Your task to perform on an android device: delete the emails in spam in the gmail app Image 0: 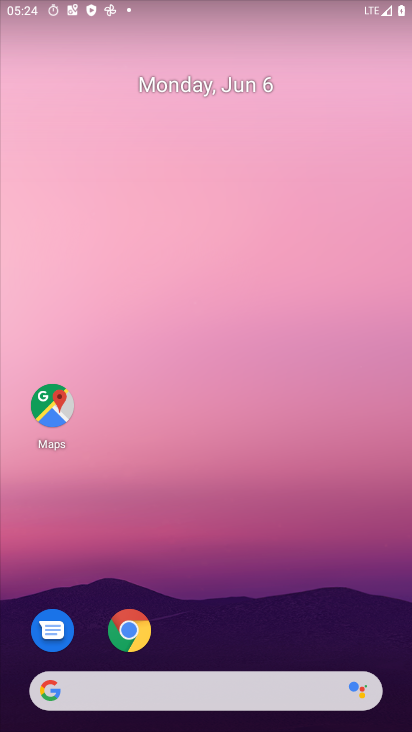
Step 0: drag from (239, 627) to (237, 78)
Your task to perform on an android device: delete the emails in spam in the gmail app Image 1: 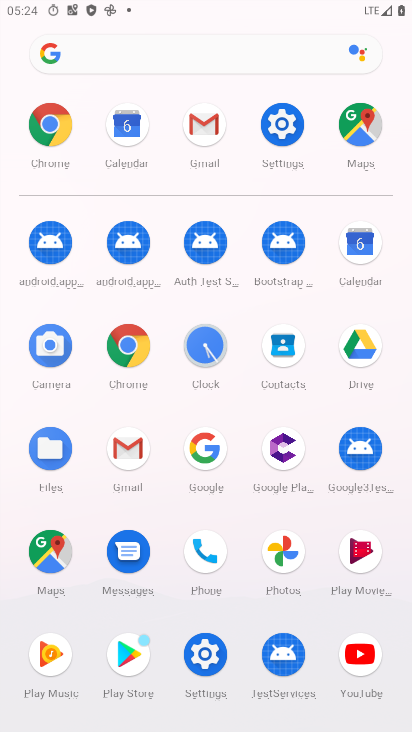
Step 1: click (124, 453)
Your task to perform on an android device: delete the emails in spam in the gmail app Image 2: 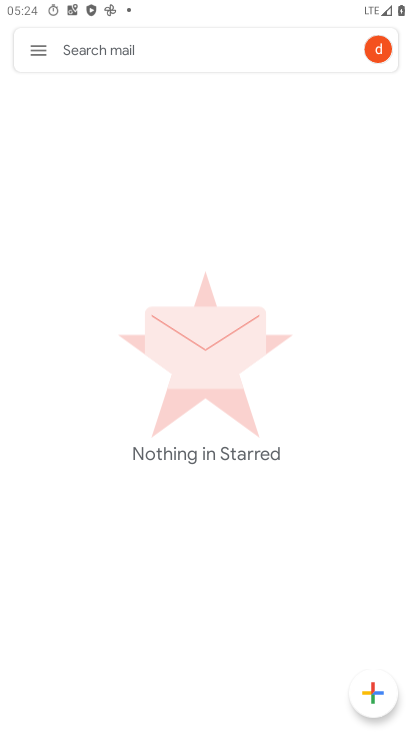
Step 2: click (42, 44)
Your task to perform on an android device: delete the emails in spam in the gmail app Image 3: 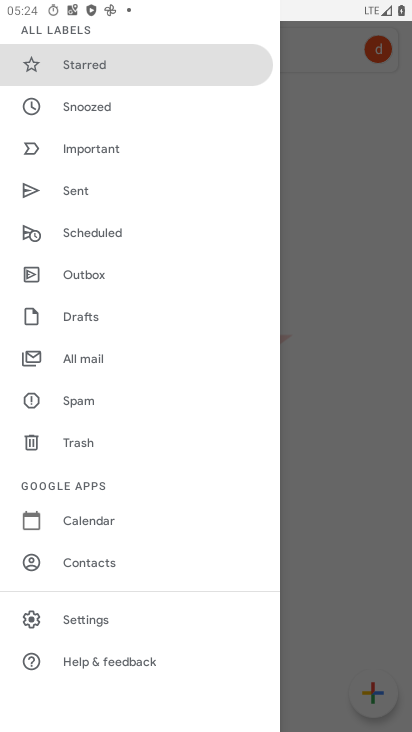
Step 3: click (75, 616)
Your task to perform on an android device: delete the emails in spam in the gmail app Image 4: 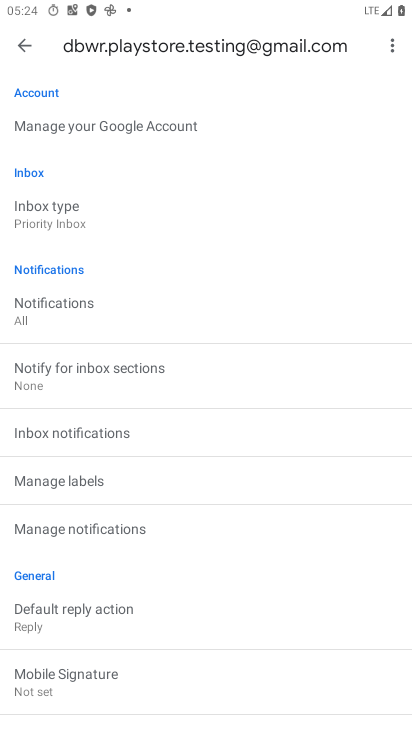
Step 4: press back button
Your task to perform on an android device: delete the emails in spam in the gmail app Image 5: 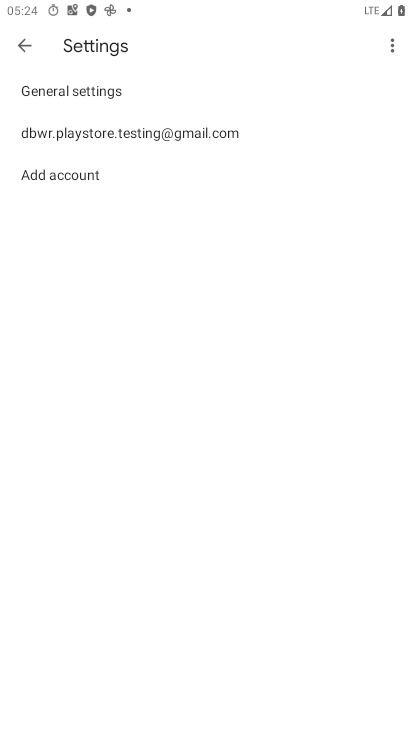
Step 5: click (23, 31)
Your task to perform on an android device: delete the emails in spam in the gmail app Image 6: 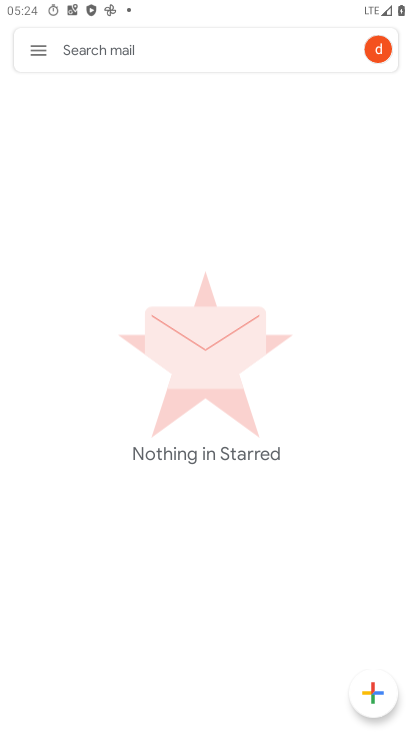
Step 6: click (38, 43)
Your task to perform on an android device: delete the emails in spam in the gmail app Image 7: 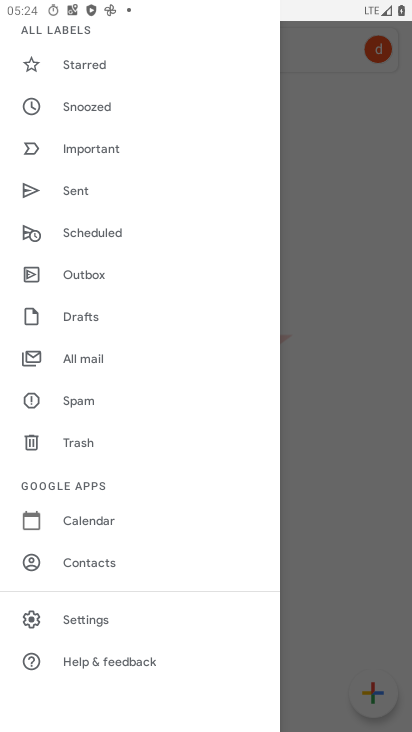
Step 7: click (82, 386)
Your task to perform on an android device: delete the emails in spam in the gmail app Image 8: 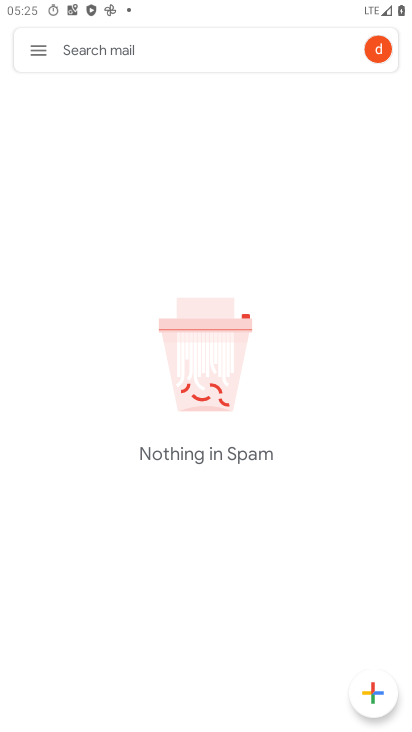
Step 8: task complete